Your task to perform on an android device: turn off airplane mode Image 0: 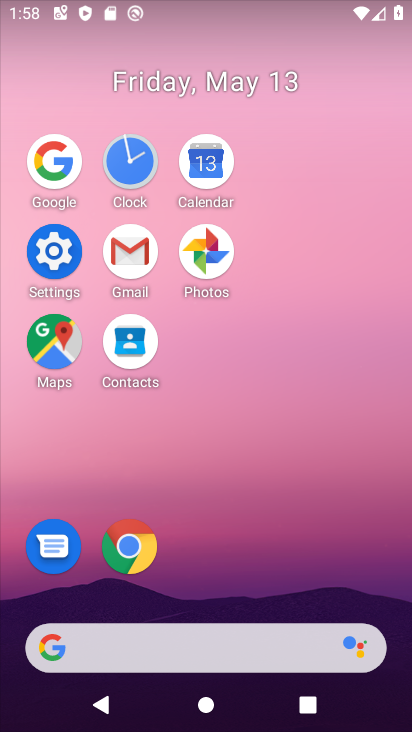
Step 0: click (52, 255)
Your task to perform on an android device: turn off airplane mode Image 1: 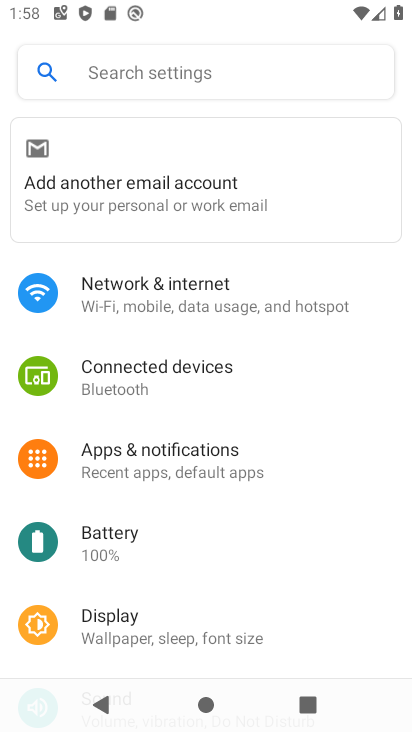
Step 1: click (172, 303)
Your task to perform on an android device: turn off airplane mode Image 2: 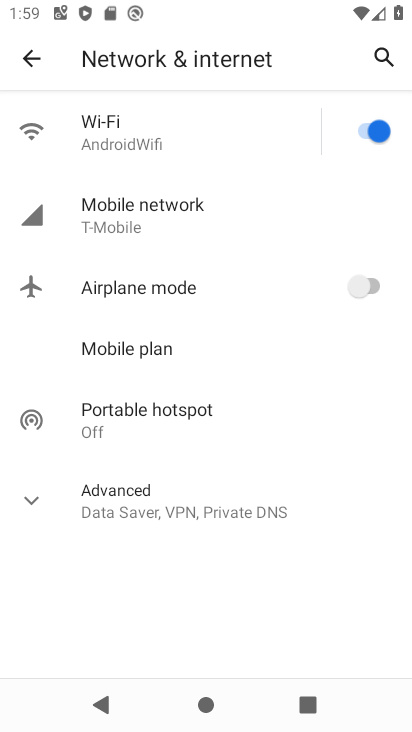
Step 2: task complete